Your task to perform on an android device: open a new tab in the chrome app Image 0: 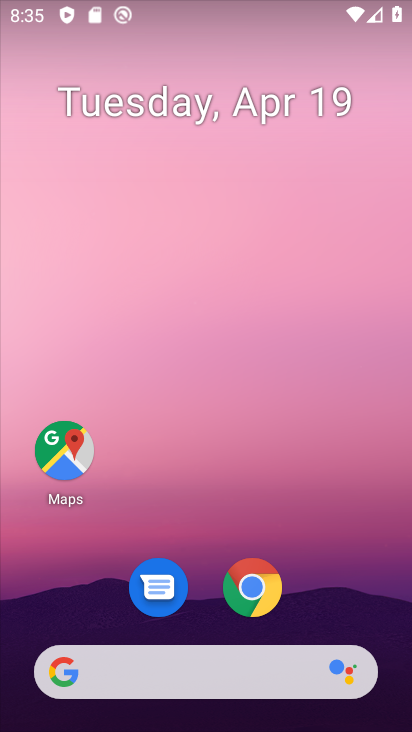
Step 0: click (264, 596)
Your task to perform on an android device: open a new tab in the chrome app Image 1: 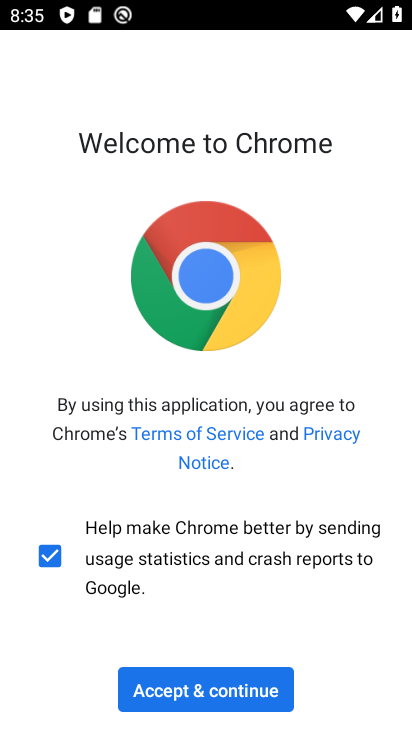
Step 1: click (222, 688)
Your task to perform on an android device: open a new tab in the chrome app Image 2: 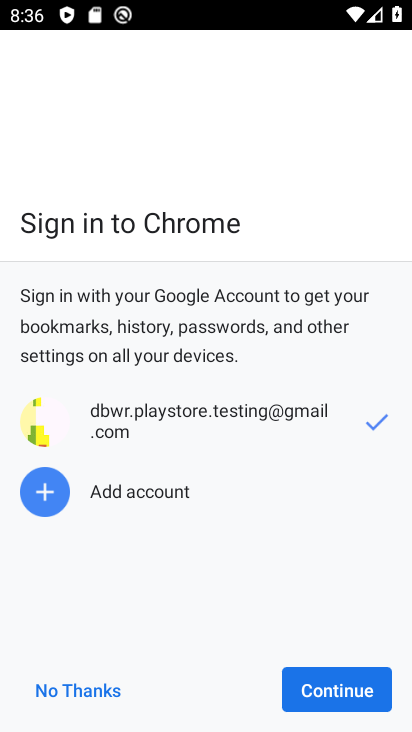
Step 2: click (92, 694)
Your task to perform on an android device: open a new tab in the chrome app Image 3: 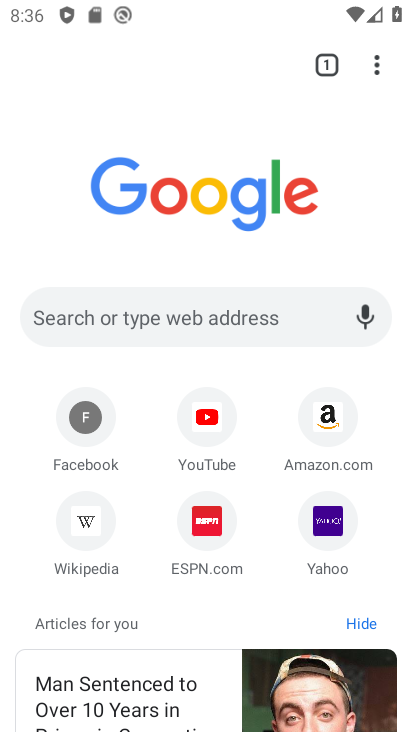
Step 3: click (378, 66)
Your task to perform on an android device: open a new tab in the chrome app Image 4: 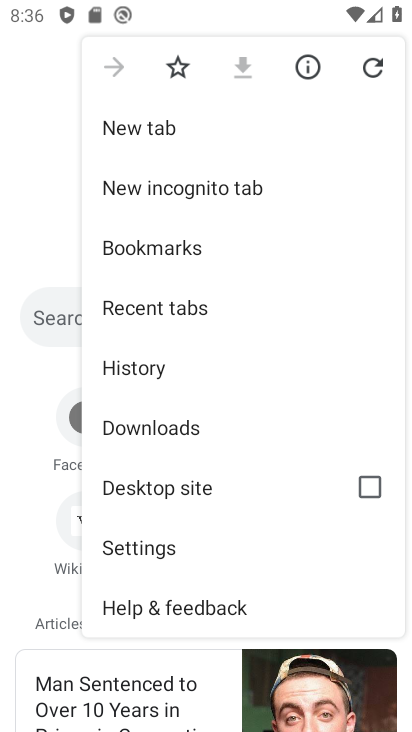
Step 4: click (137, 127)
Your task to perform on an android device: open a new tab in the chrome app Image 5: 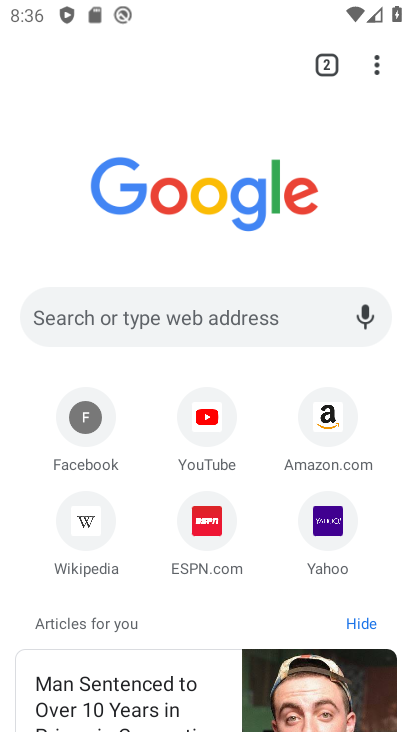
Step 5: task complete